Your task to perform on an android device: install app "Messages" Image 0: 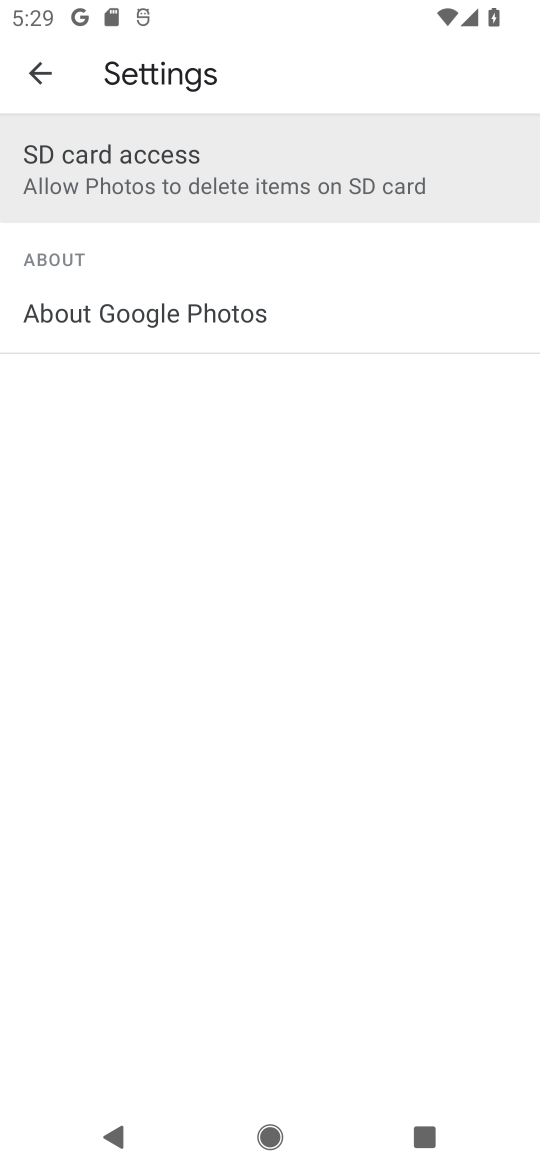
Step 0: press home button
Your task to perform on an android device: install app "Messages" Image 1: 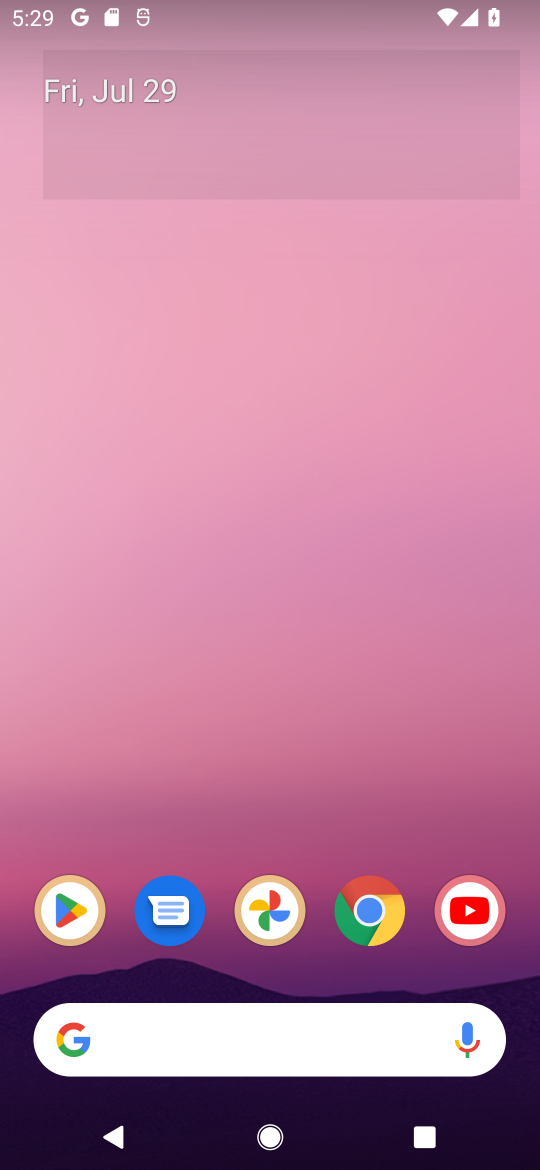
Step 1: click (66, 905)
Your task to perform on an android device: install app "Messages" Image 2: 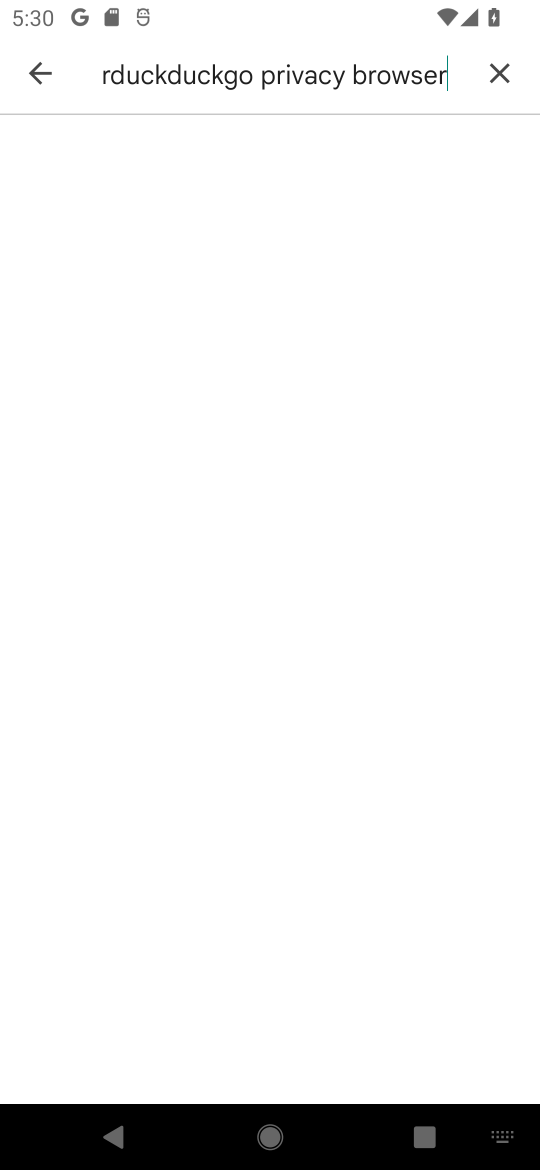
Step 2: click (504, 83)
Your task to perform on an android device: install app "Messages" Image 3: 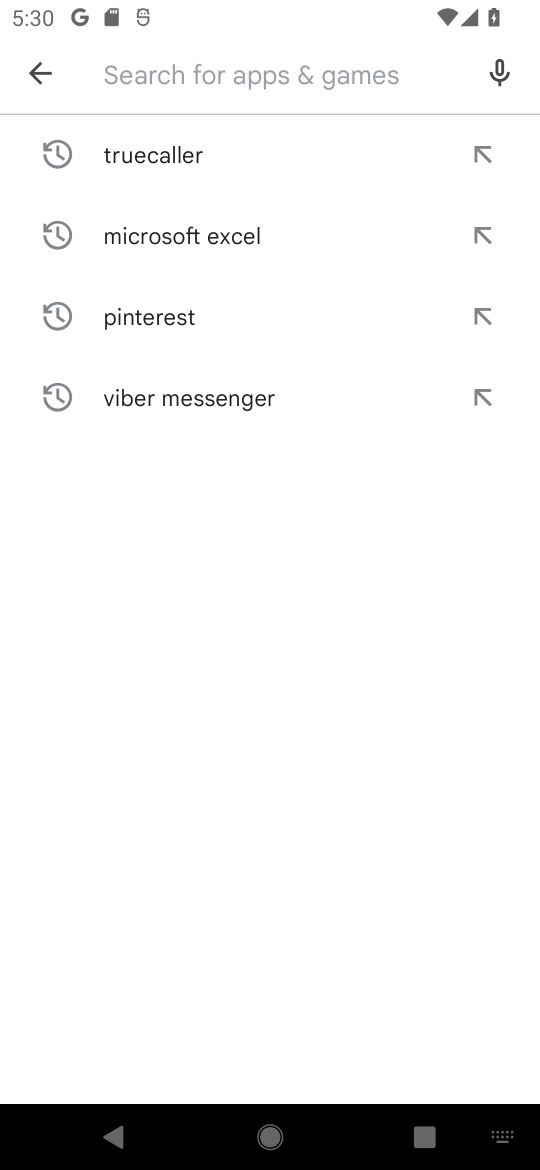
Step 3: click (349, 81)
Your task to perform on an android device: install app "Messages" Image 4: 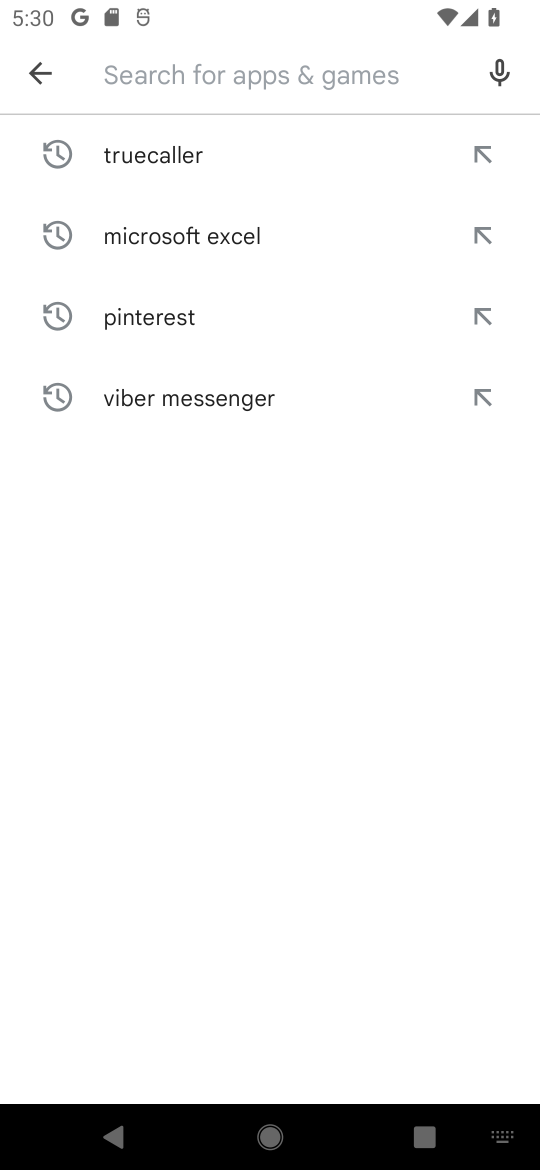
Step 4: type "messages"
Your task to perform on an android device: install app "Messages" Image 5: 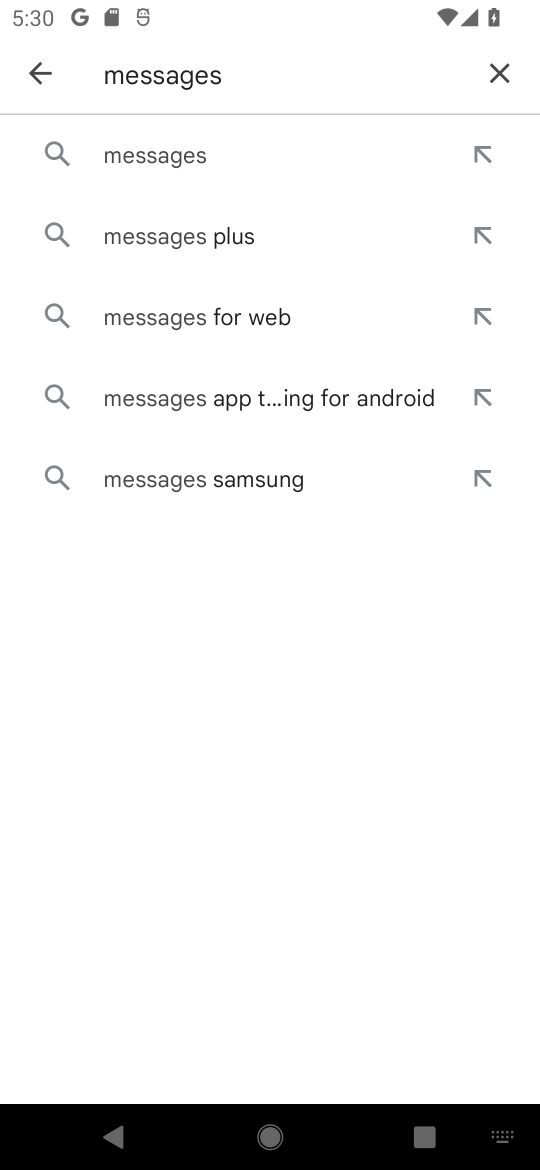
Step 5: click (293, 147)
Your task to perform on an android device: install app "Messages" Image 6: 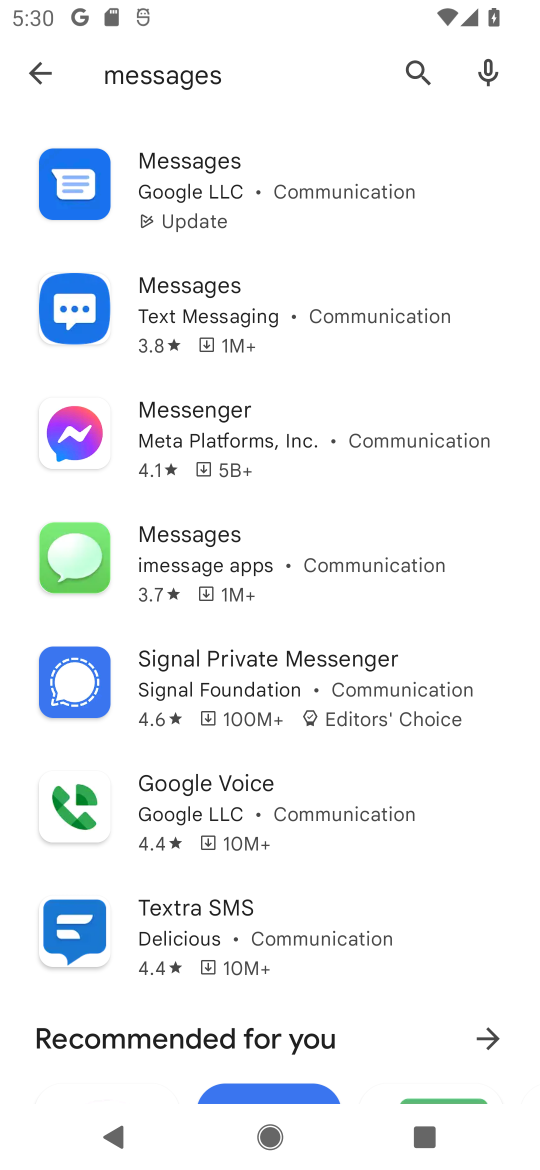
Step 6: click (260, 170)
Your task to perform on an android device: install app "Messages" Image 7: 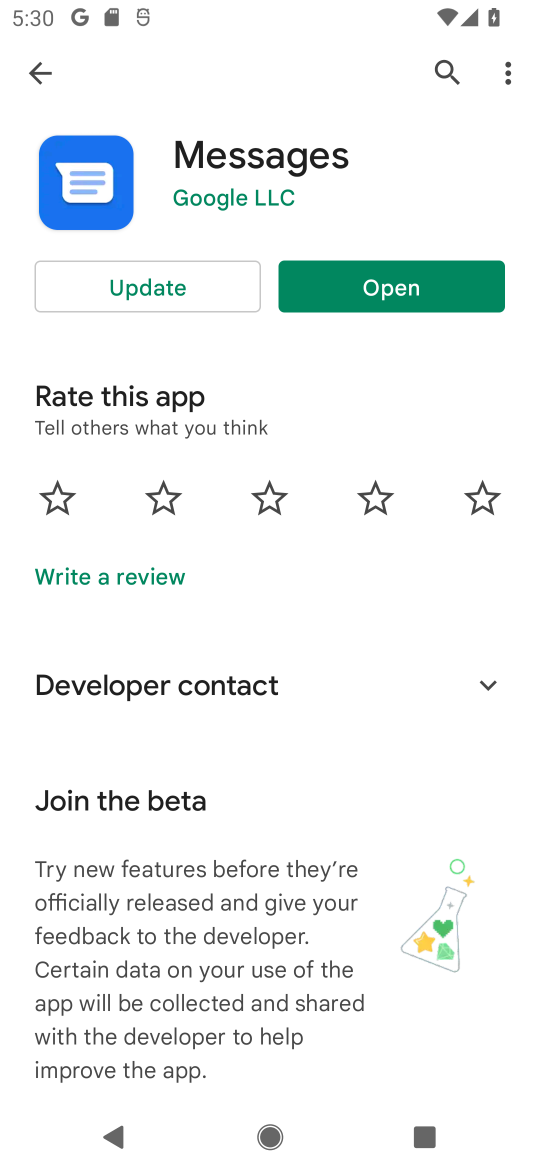
Step 7: task complete